Your task to perform on an android device: Open Youtube and go to the subscriptions tab Image 0: 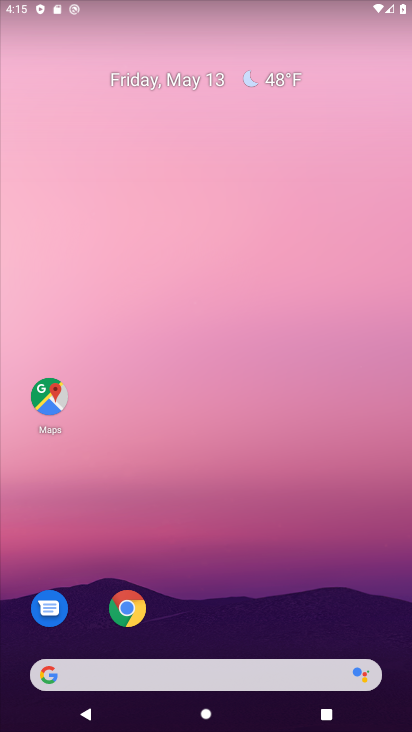
Step 0: drag from (241, 724) to (242, 135)
Your task to perform on an android device: Open Youtube and go to the subscriptions tab Image 1: 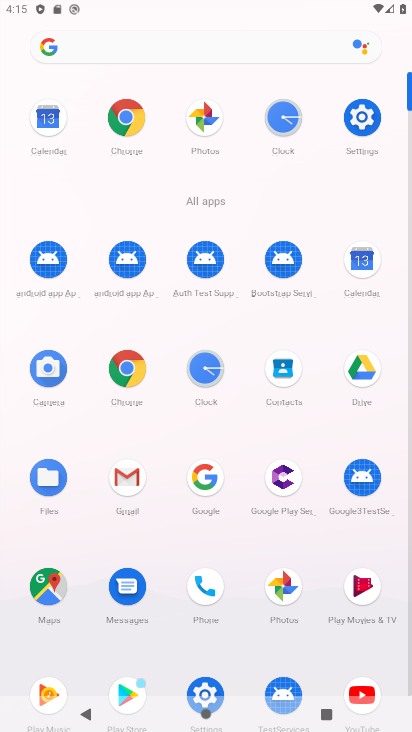
Step 1: click (365, 686)
Your task to perform on an android device: Open Youtube and go to the subscriptions tab Image 2: 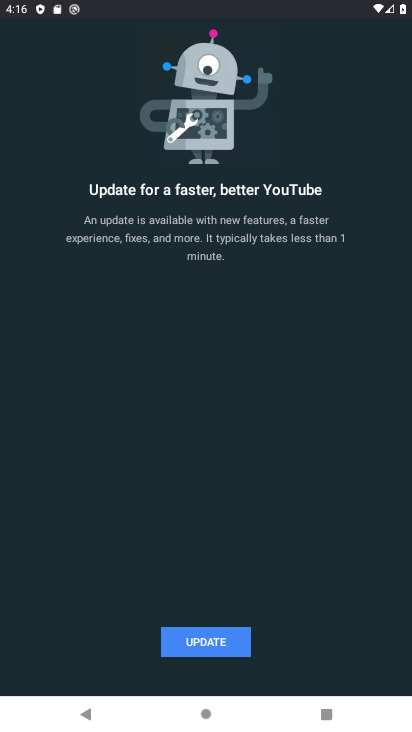
Step 2: task complete